Your task to perform on an android device: Go to ESPN.com Image 0: 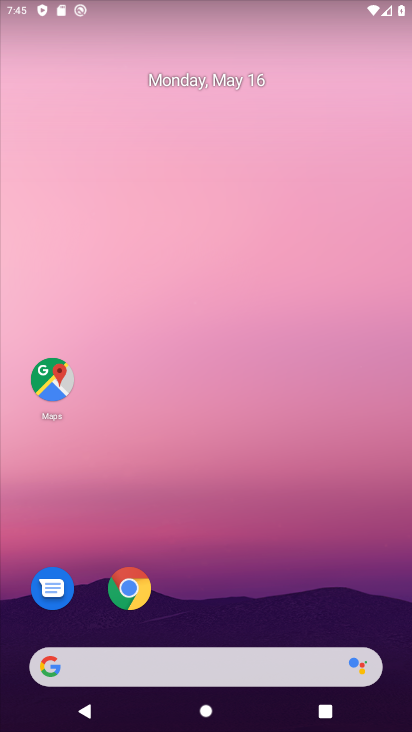
Step 0: click (131, 591)
Your task to perform on an android device: Go to ESPN.com Image 1: 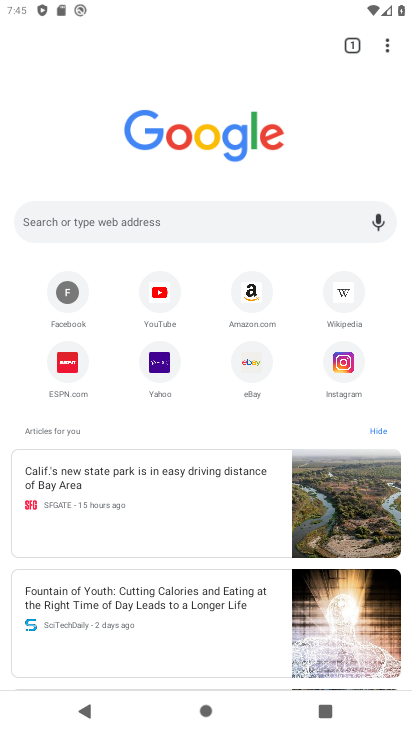
Step 1: click (62, 370)
Your task to perform on an android device: Go to ESPN.com Image 2: 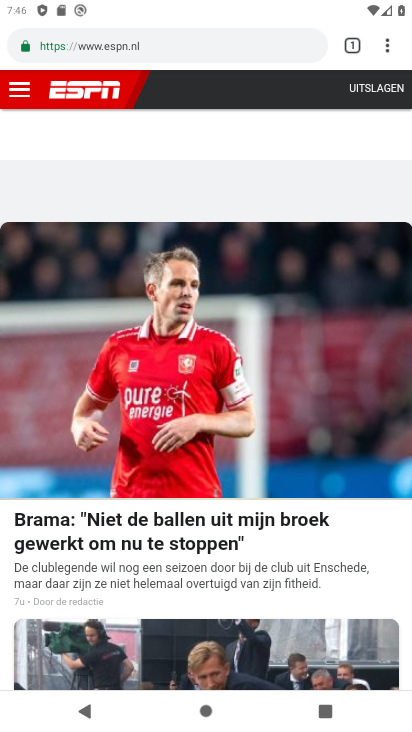
Step 2: task complete